Your task to perform on an android device: change text size in settings app Image 0: 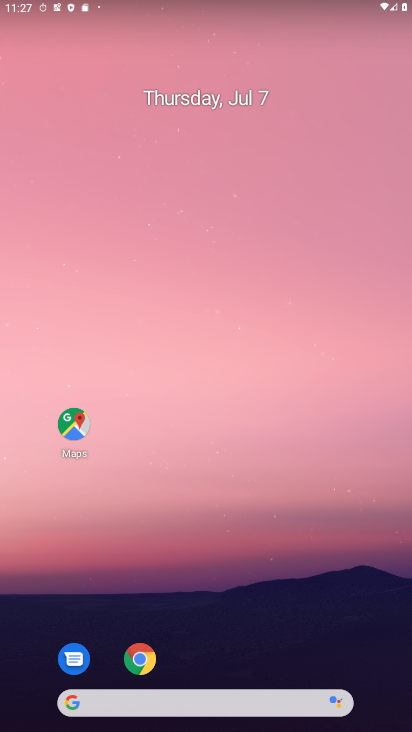
Step 0: drag from (206, 675) to (205, 52)
Your task to perform on an android device: change text size in settings app Image 1: 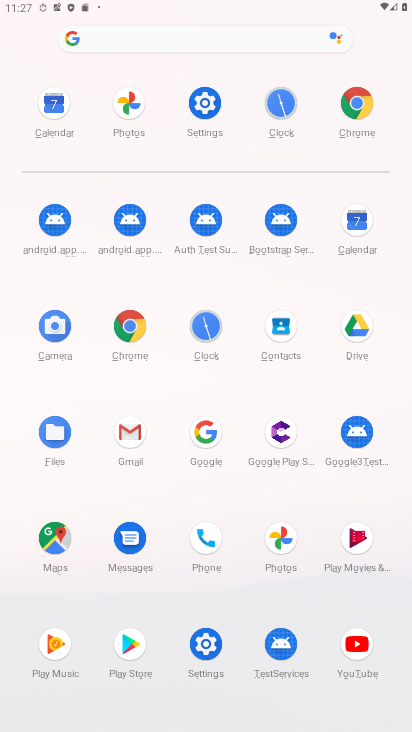
Step 1: click (204, 97)
Your task to perform on an android device: change text size in settings app Image 2: 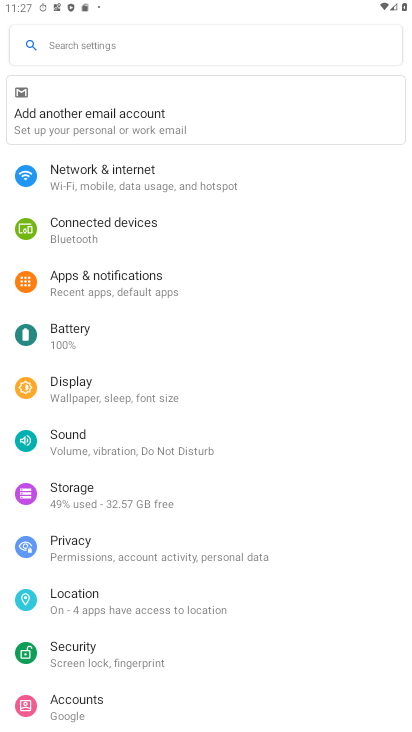
Step 2: click (90, 377)
Your task to perform on an android device: change text size in settings app Image 3: 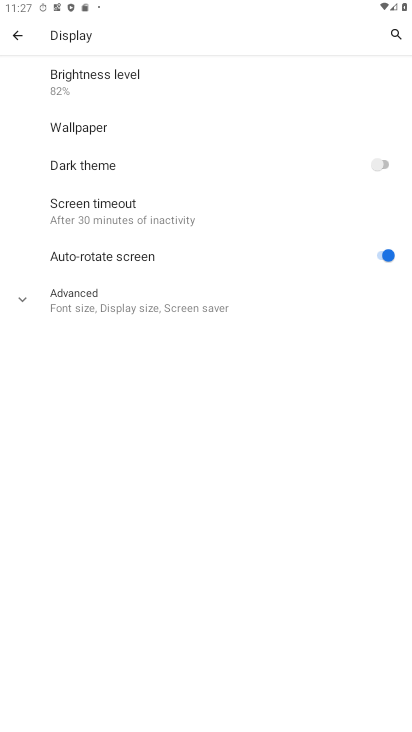
Step 3: click (64, 296)
Your task to perform on an android device: change text size in settings app Image 4: 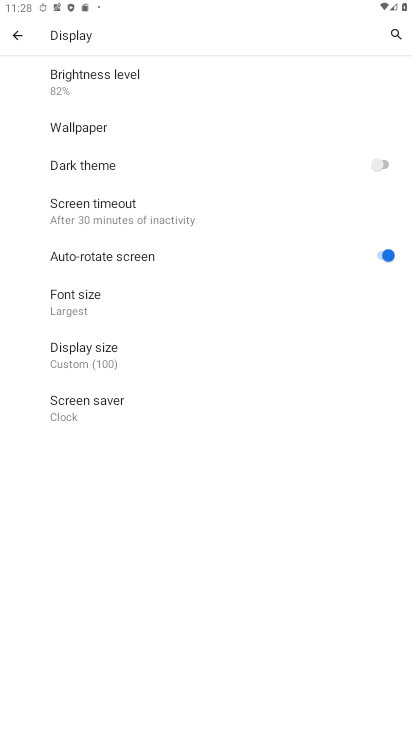
Step 4: click (94, 302)
Your task to perform on an android device: change text size in settings app Image 5: 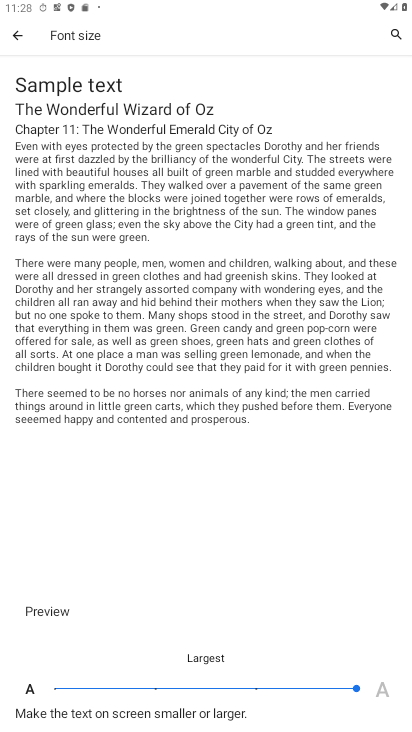
Step 5: click (255, 689)
Your task to perform on an android device: change text size in settings app Image 6: 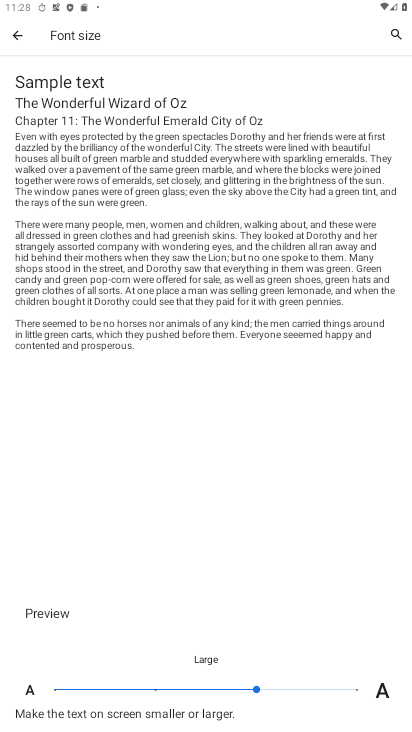
Step 6: task complete